Your task to perform on an android device: toggle javascript in the chrome app Image 0: 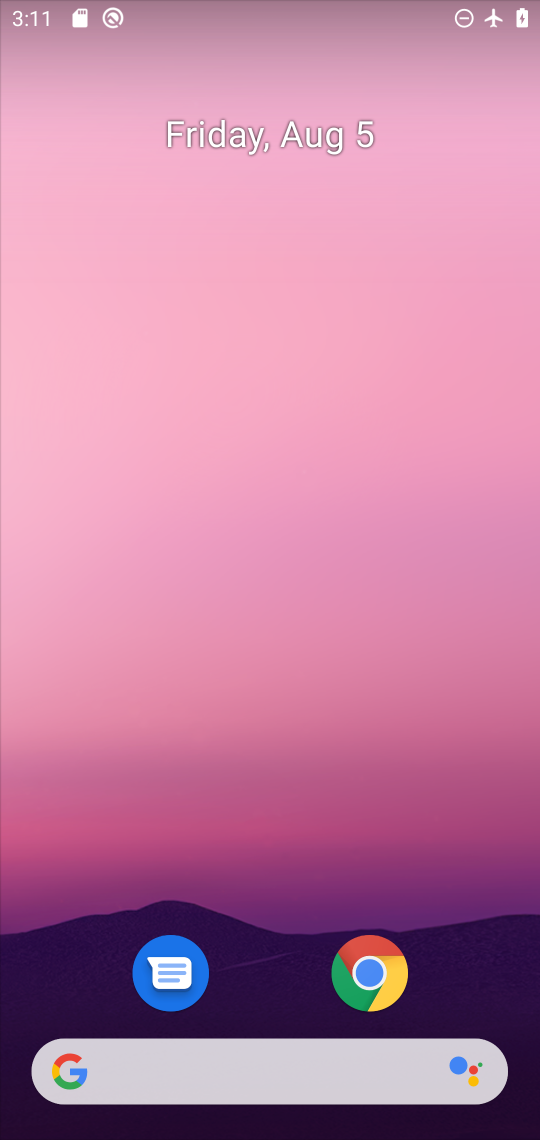
Step 0: drag from (259, 1029) to (257, 67)
Your task to perform on an android device: toggle javascript in the chrome app Image 1: 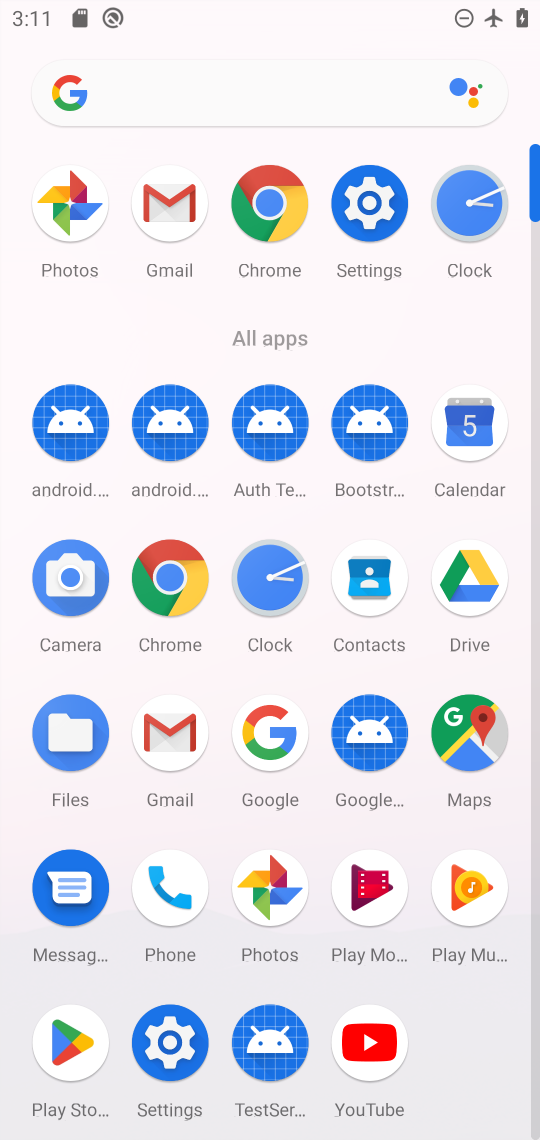
Step 1: click (187, 588)
Your task to perform on an android device: toggle javascript in the chrome app Image 2: 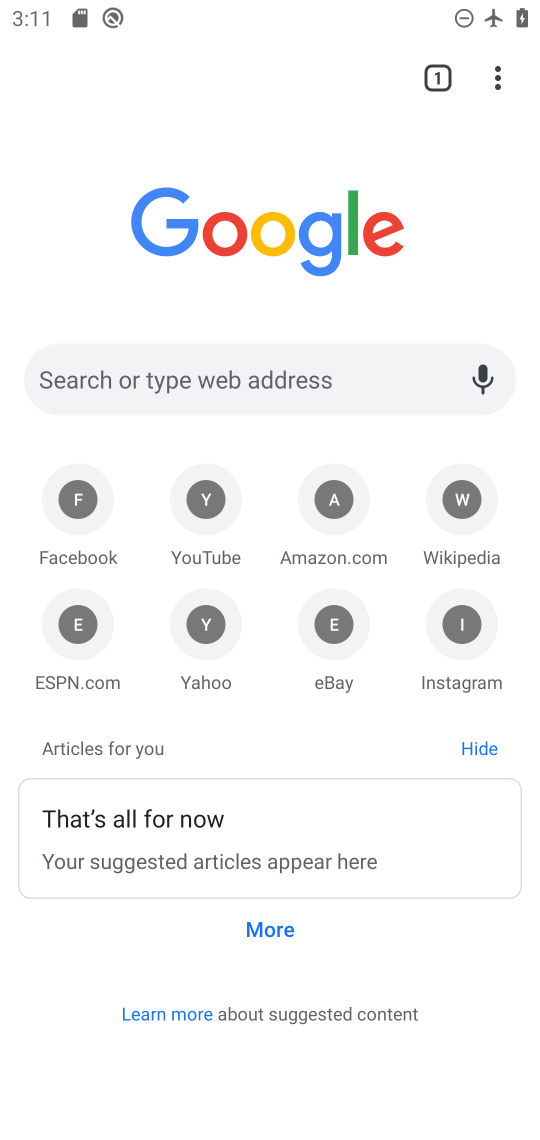
Step 2: click (507, 78)
Your task to perform on an android device: toggle javascript in the chrome app Image 3: 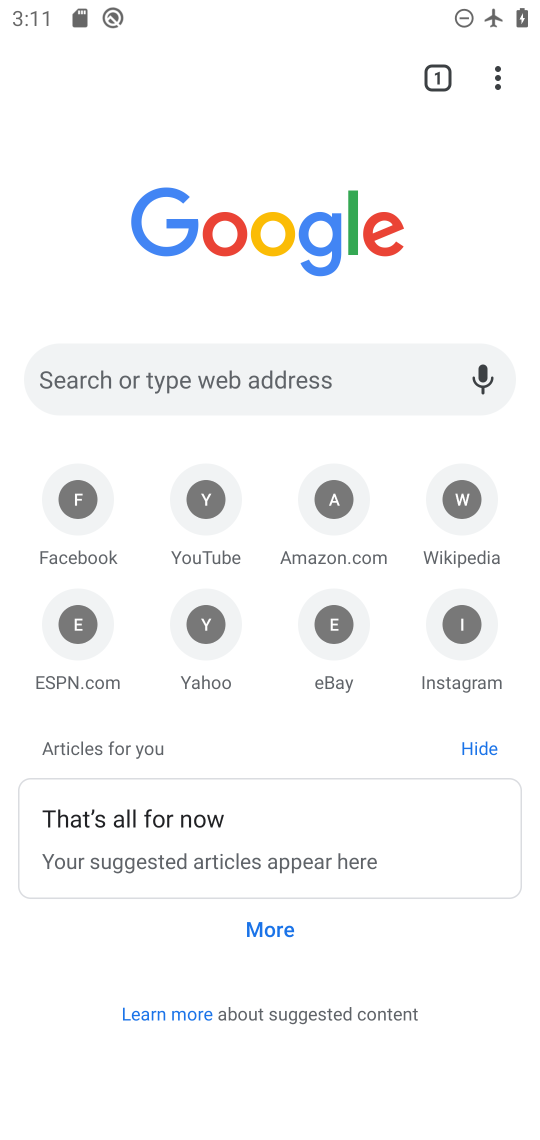
Step 3: drag from (507, 78) to (221, 643)
Your task to perform on an android device: toggle javascript in the chrome app Image 4: 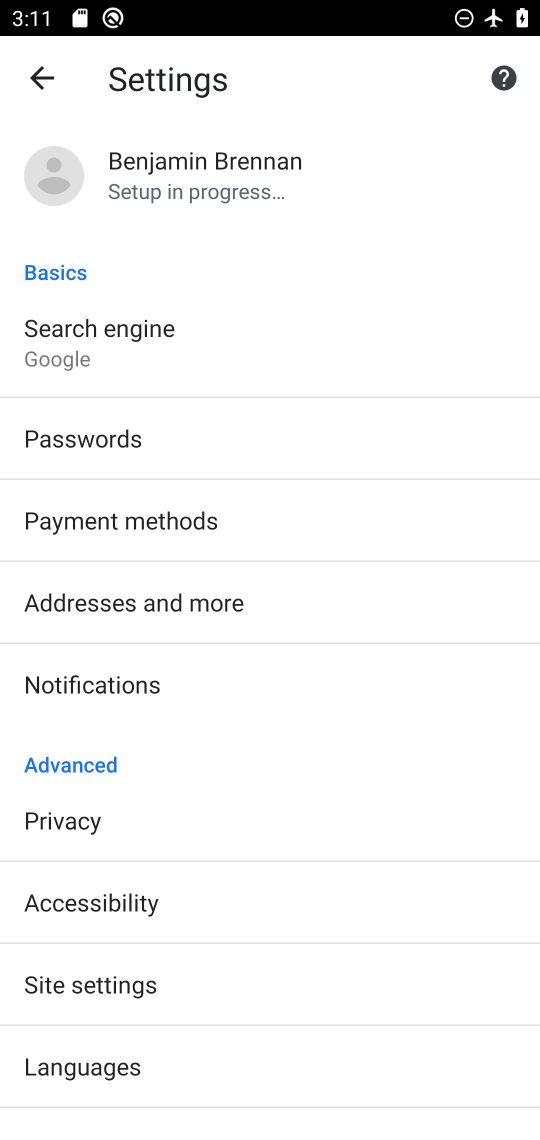
Step 4: click (77, 967)
Your task to perform on an android device: toggle javascript in the chrome app Image 5: 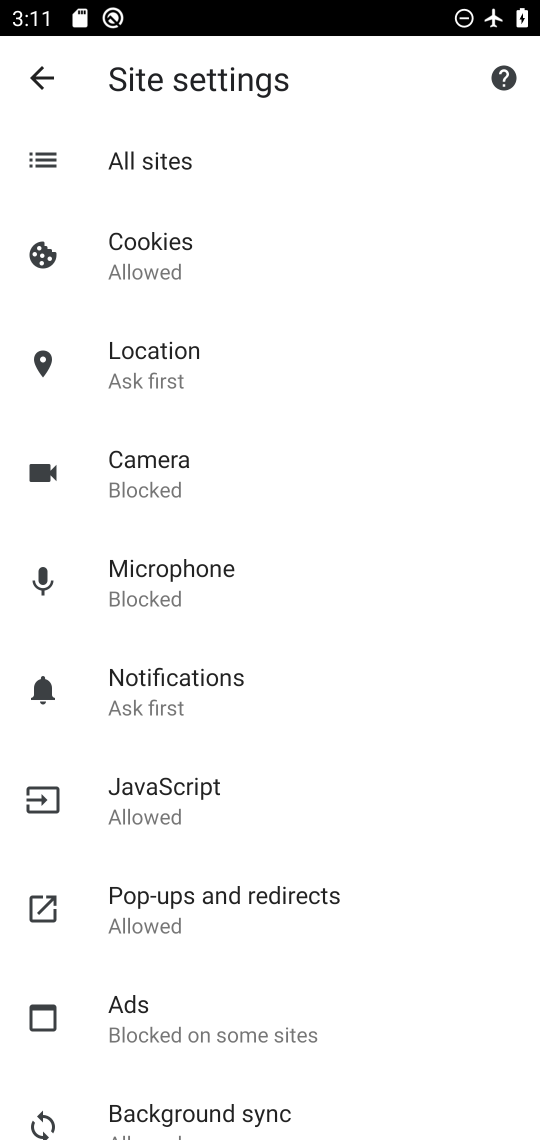
Step 5: click (155, 797)
Your task to perform on an android device: toggle javascript in the chrome app Image 6: 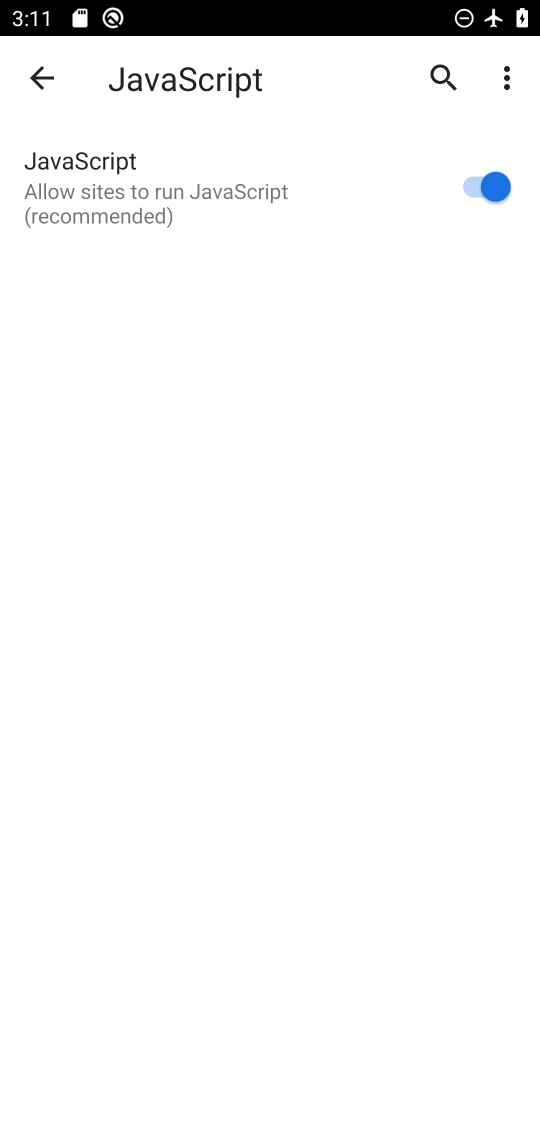
Step 6: click (457, 196)
Your task to perform on an android device: toggle javascript in the chrome app Image 7: 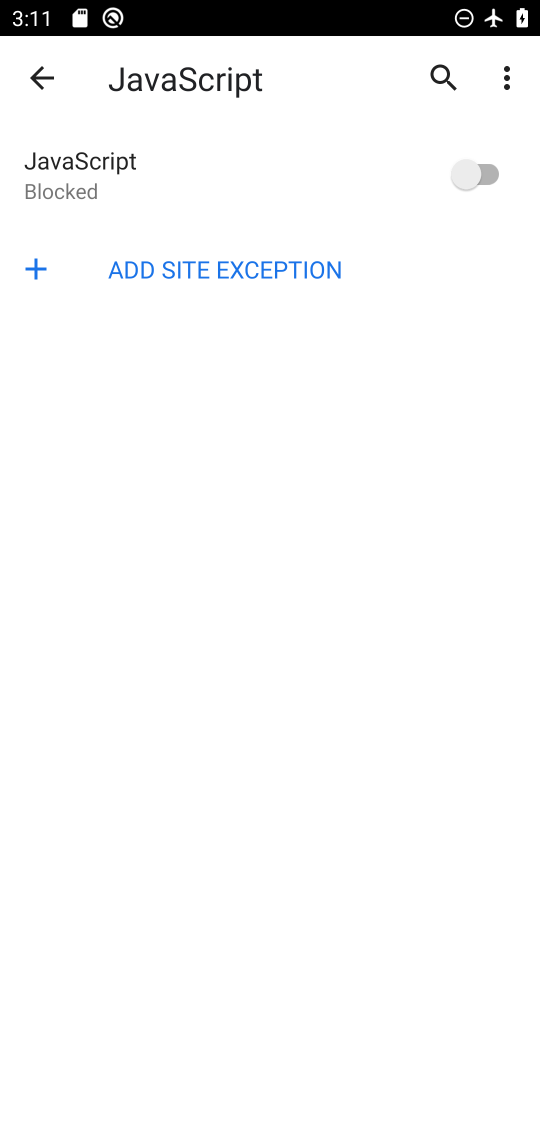
Step 7: task complete